Your task to perform on an android device: check out phone information Image 0: 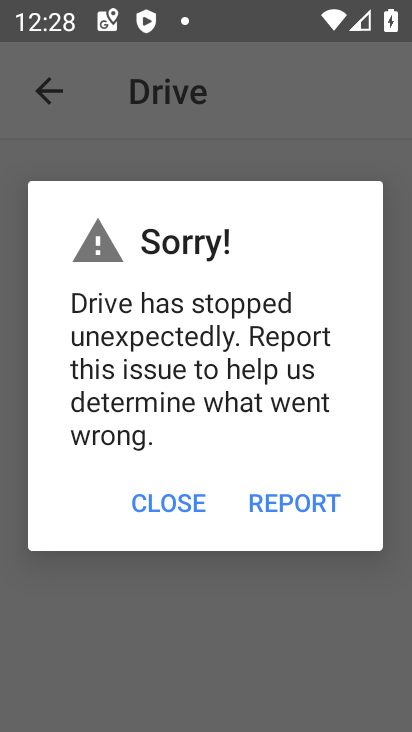
Step 0: press home button
Your task to perform on an android device: check out phone information Image 1: 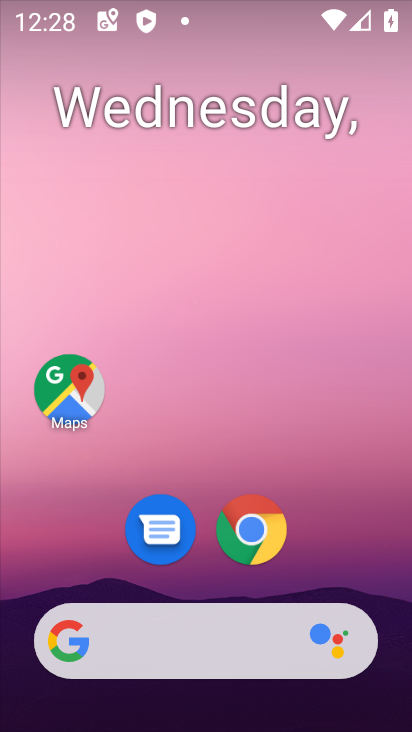
Step 1: drag from (387, 629) to (334, 97)
Your task to perform on an android device: check out phone information Image 2: 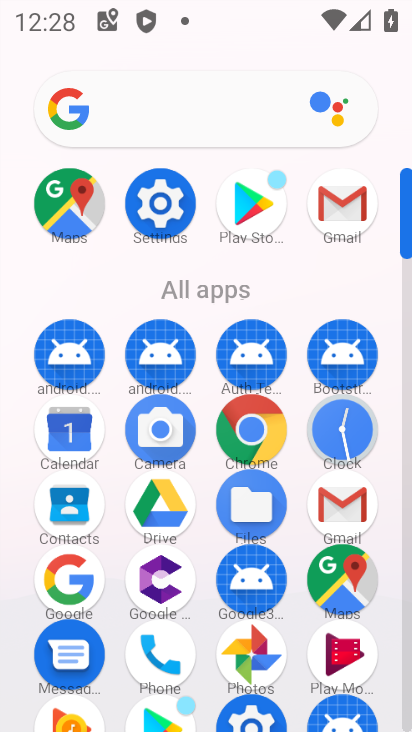
Step 2: click (408, 696)
Your task to perform on an android device: check out phone information Image 3: 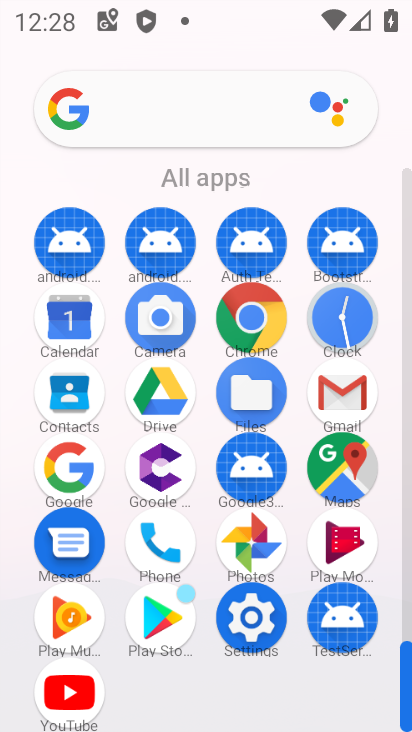
Step 3: click (255, 616)
Your task to perform on an android device: check out phone information Image 4: 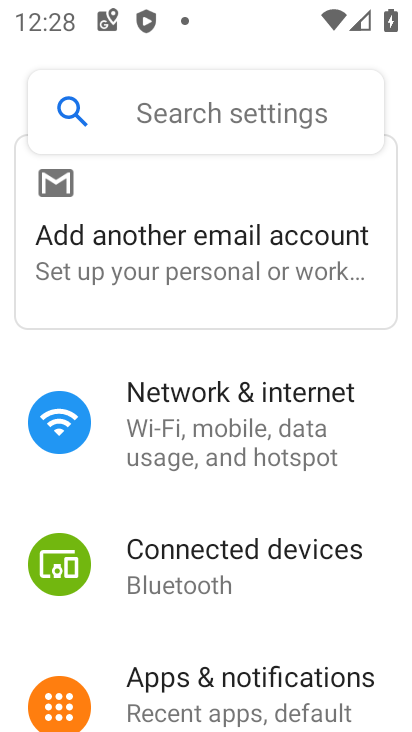
Step 4: drag from (370, 646) to (334, 115)
Your task to perform on an android device: check out phone information Image 5: 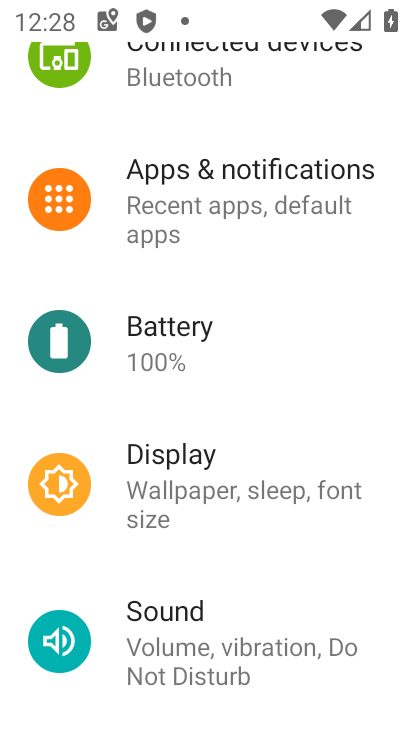
Step 5: drag from (355, 600) to (342, 154)
Your task to perform on an android device: check out phone information Image 6: 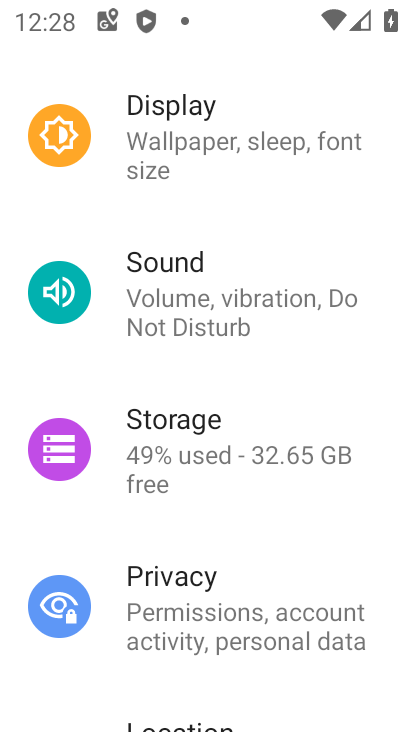
Step 6: drag from (375, 602) to (275, 10)
Your task to perform on an android device: check out phone information Image 7: 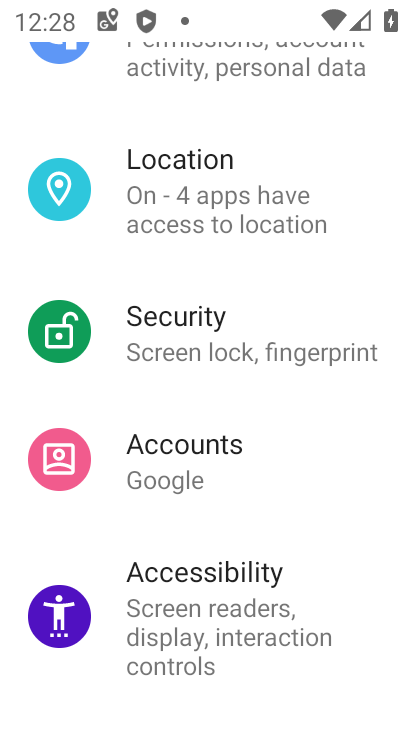
Step 7: drag from (341, 617) to (302, 126)
Your task to perform on an android device: check out phone information Image 8: 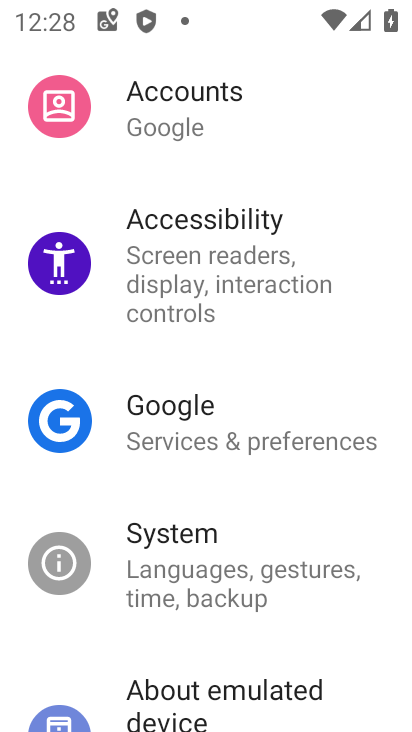
Step 8: drag from (344, 690) to (293, 209)
Your task to perform on an android device: check out phone information Image 9: 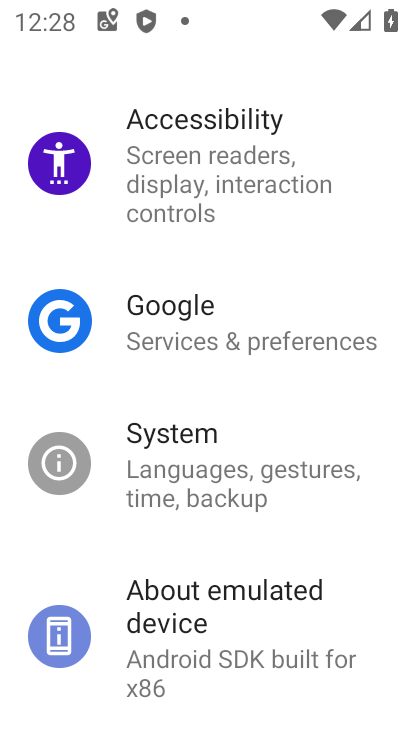
Step 9: click (207, 635)
Your task to perform on an android device: check out phone information Image 10: 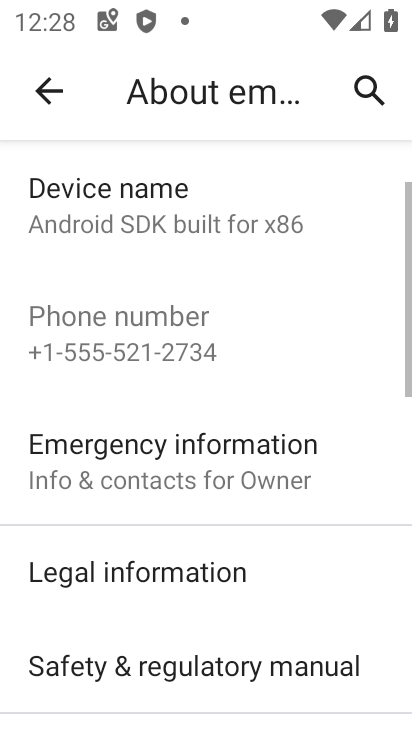
Step 10: task complete